Your task to perform on an android device: What's the weather going to be this weekend? Image 0: 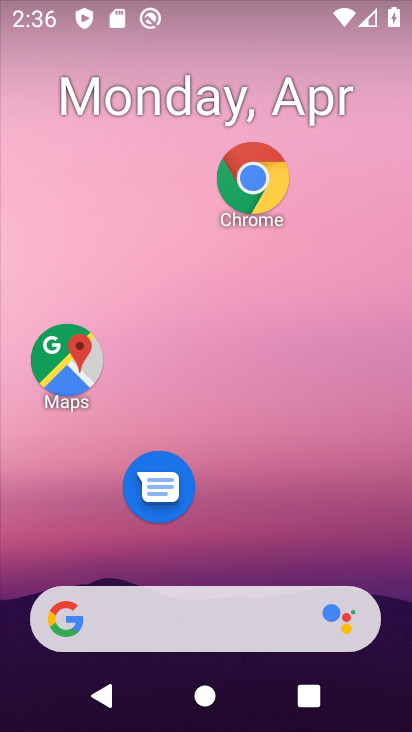
Step 0: drag from (213, 574) to (406, 151)
Your task to perform on an android device: What's the weather going to be this weekend? Image 1: 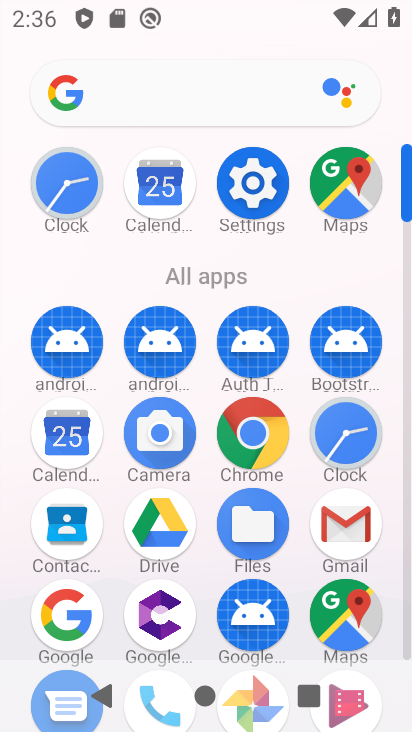
Step 1: task complete